Your task to perform on an android device: remove spam from my inbox in the gmail app Image 0: 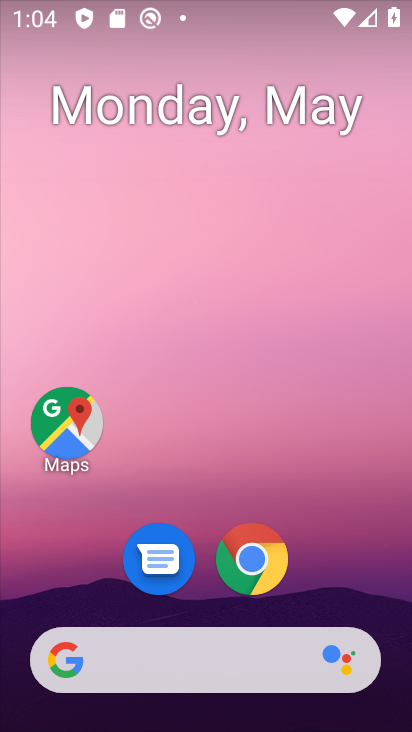
Step 0: drag from (240, 716) to (228, 73)
Your task to perform on an android device: remove spam from my inbox in the gmail app Image 1: 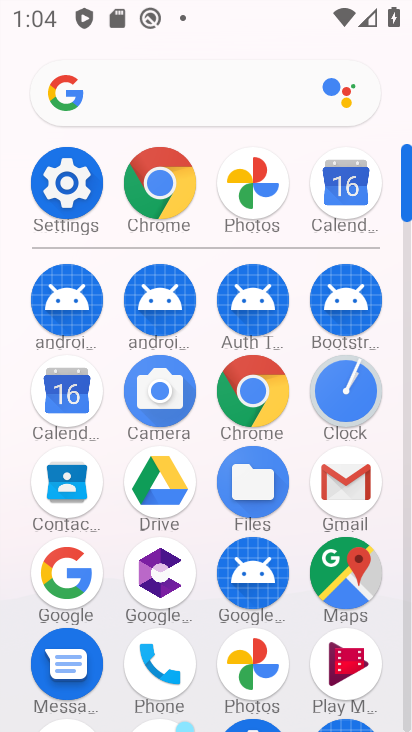
Step 1: click (353, 500)
Your task to perform on an android device: remove spam from my inbox in the gmail app Image 2: 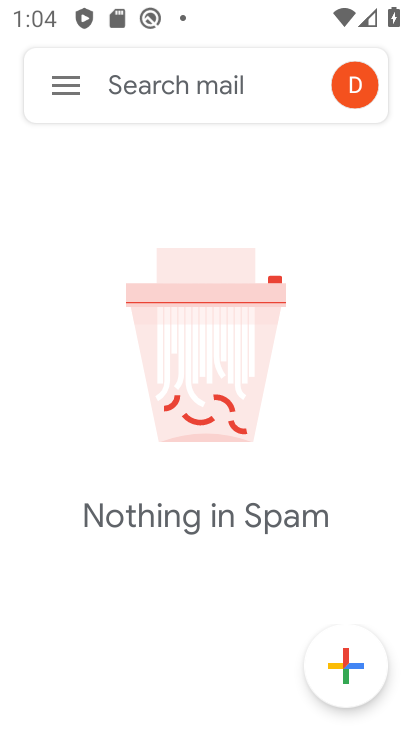
Step 2: click (69, 95)
Your task to perform on an android device: remove spam from my inbox in the gmail app Image 3: 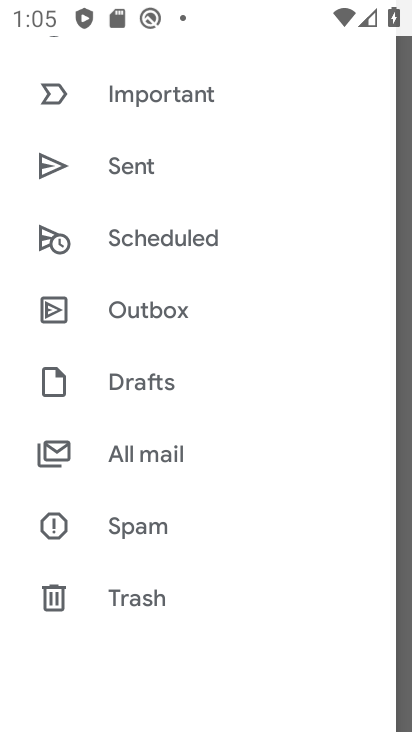
Step 3: task complete